Your task to perform on an android device: visit the assistant section in the google photos Image 0: 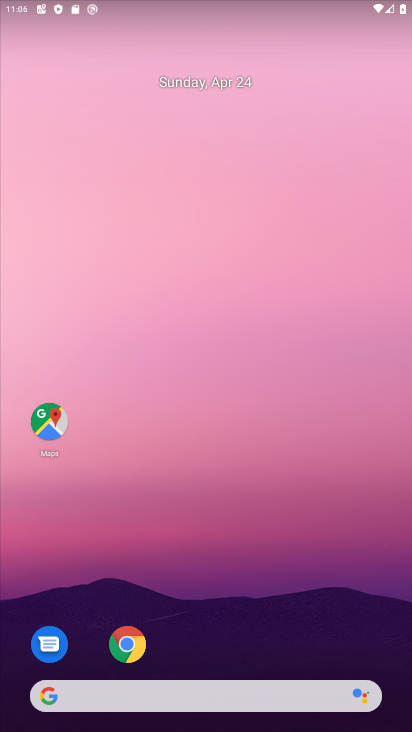
Step 0: drag from (347, 596) to (355, 21)
Your task to perform on an android device: visit the assistant section in the google photos Image 1: 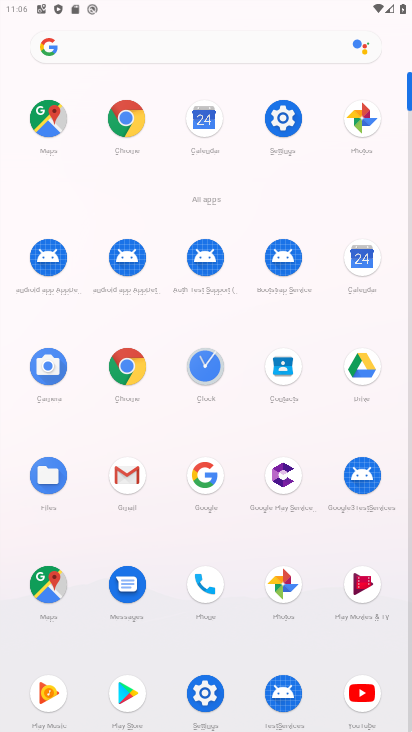
Step 1: click (364, 125)
Your task to perform on an android device: visit the assistant section in the google photos Image 2: 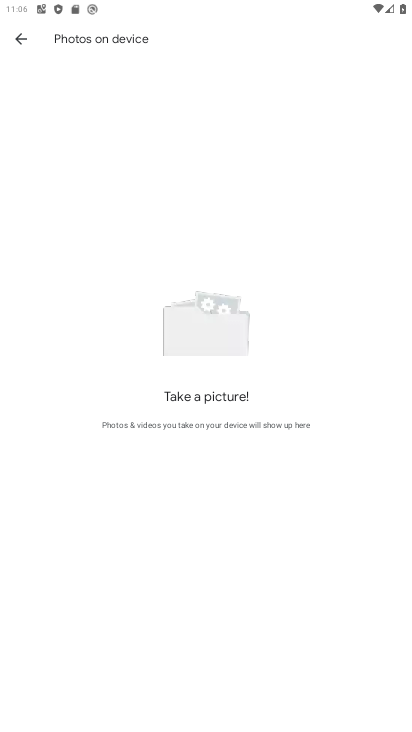
Step 2: click (22, 41)
Your task to perform on an android device: visit the assistant section in the google photos Image 3: 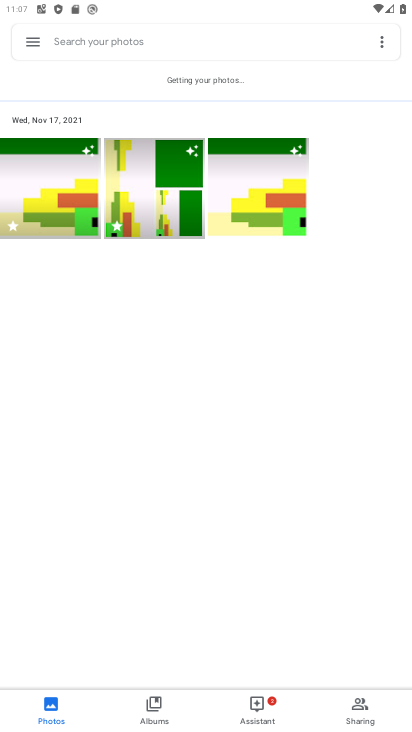
Step 3: click (262, 717)
Your task to perform on an android device: visit the assistant section in the google photos Image 4: 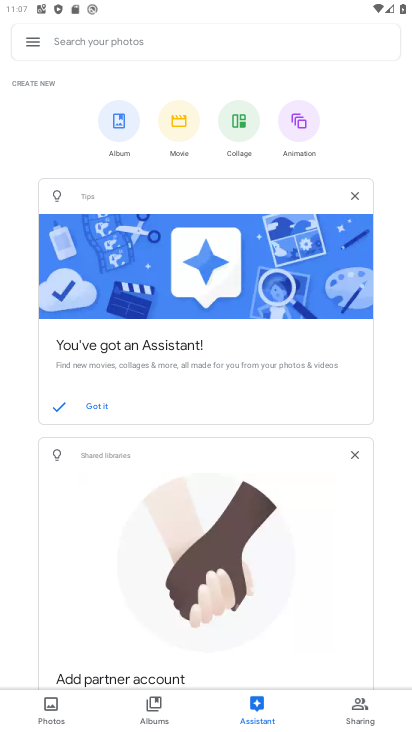
Step 4: task complete